Your task to perform on an android device: Search for Mexican restaurants on Maps Image 0: 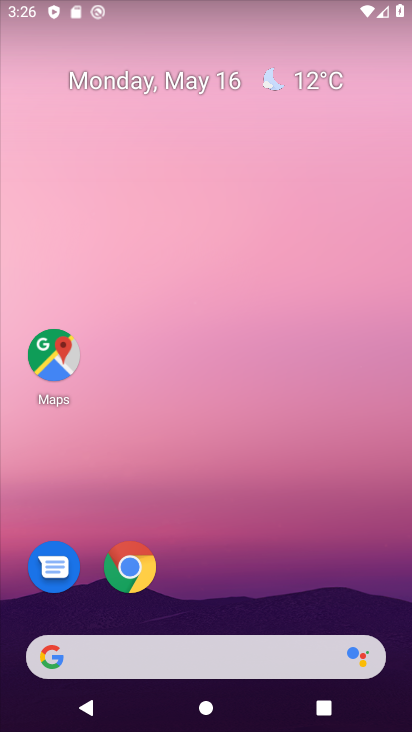
Step 0: drag from (273, 508) to (227, 46)
Your task to perform on an android device: Search for Mexican restaurants on Maps Image 1: 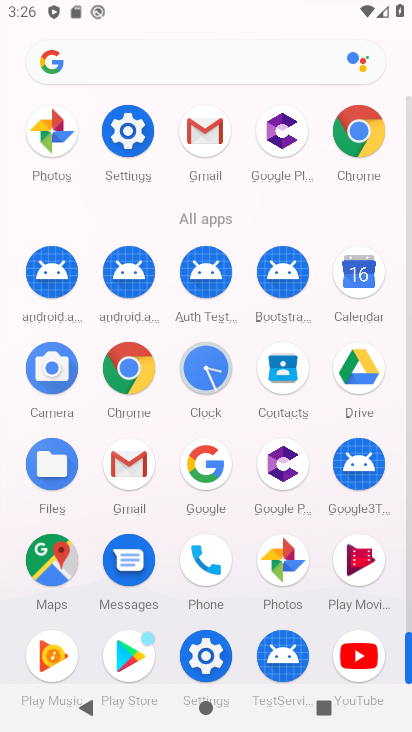
Step 1: drag from (5, 497) to (0, 338)
Your task to perform on an android device: Search for Mexican restaurants on Maps Image 2: 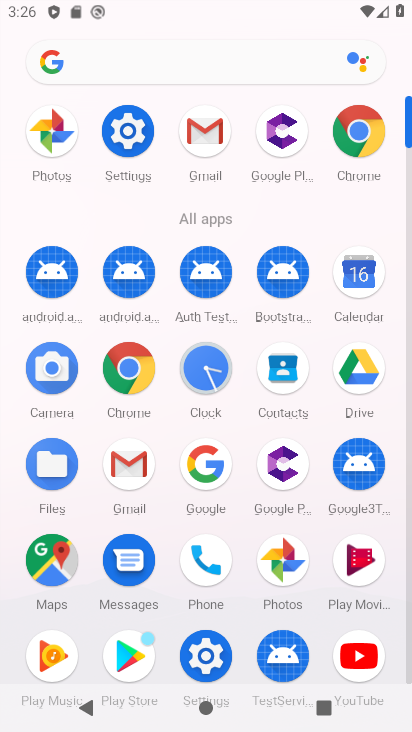
Step 2: drag from (9, 503) to (1, 184)
Your task to perform on an android device: Search for Mexican restaurants on Maps Image 3: 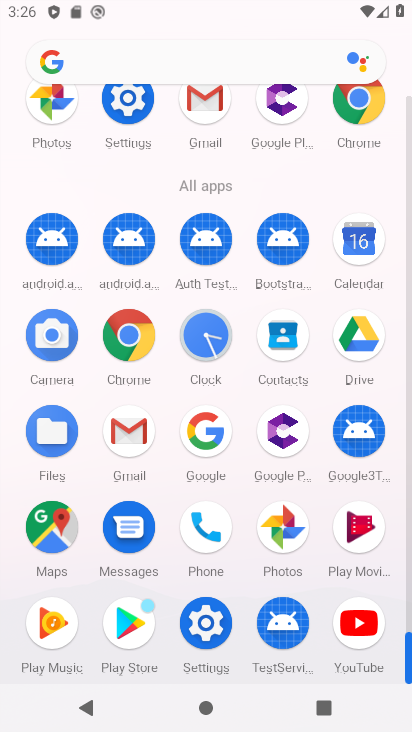
Step 3: click (50, 520)
Your task to perform on an android device: Search for Mexican restaurants on Maps Image 4: 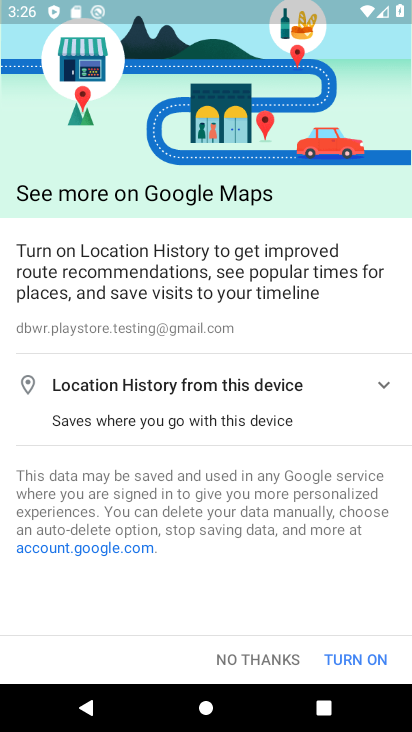
Step 4: click (346, 652)
Your task to perform on an android device: Search for Mexican restaurants on Maps Image 5: 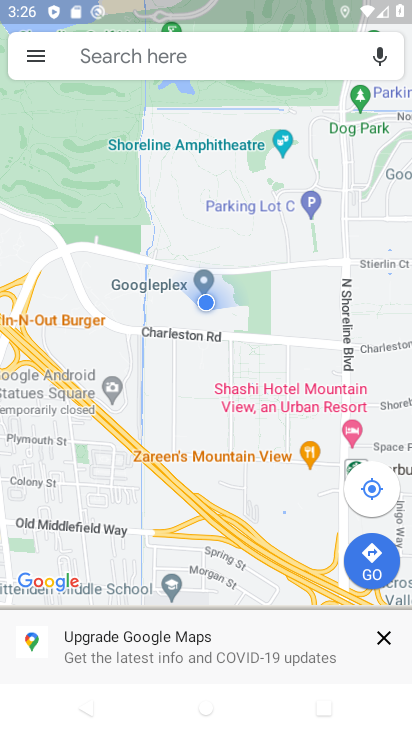
Step 5: click (204, 47)
Your task to perform on an android device: Search for Mexican restaurants on Maps Image 6: 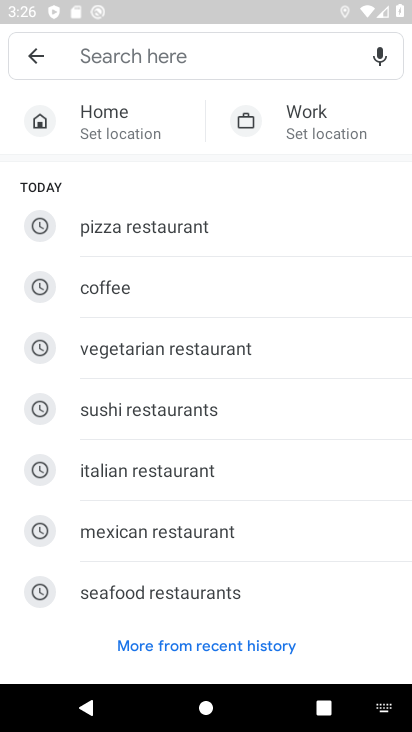
Step 6: click (181, 525)
Your task to perform on an android device: Search for Mexican restaurants on Maps Image 7: 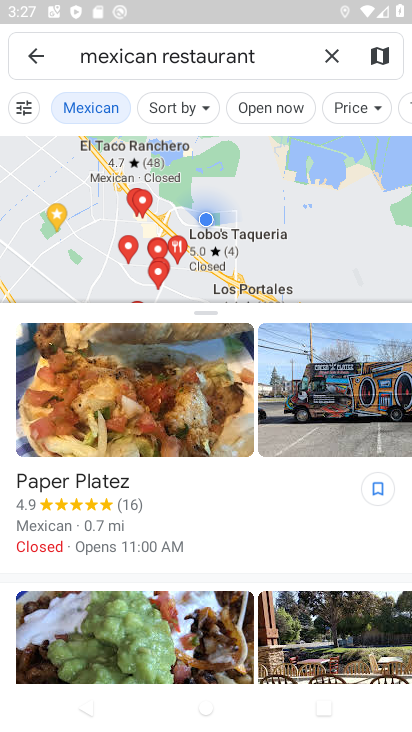
Step 7: task complete